Your task to perform on an android device: turn off location Image 0: 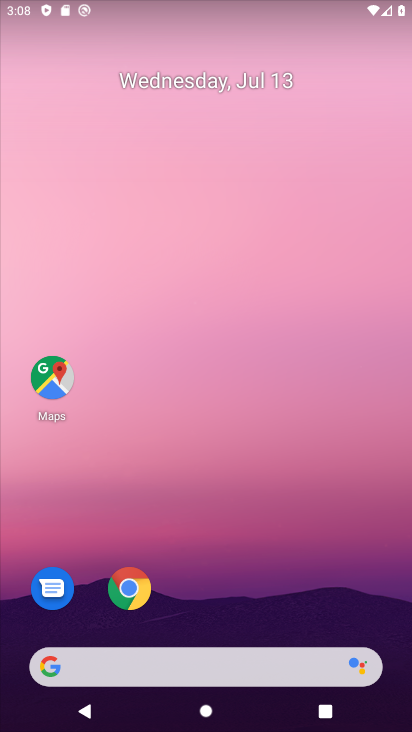
Step 0: drag from (285, 680) to (309, 96)
Your task to perform on an android device: turn off location Image 1: 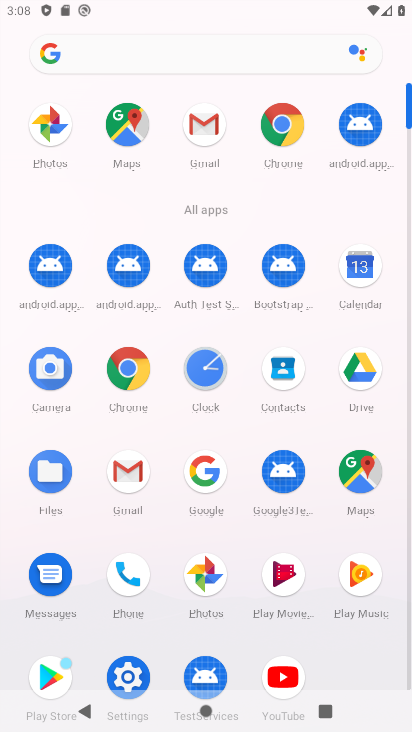
Step 1: click (128, 667)
Your task to perform on an android device: turn off location Image 2: 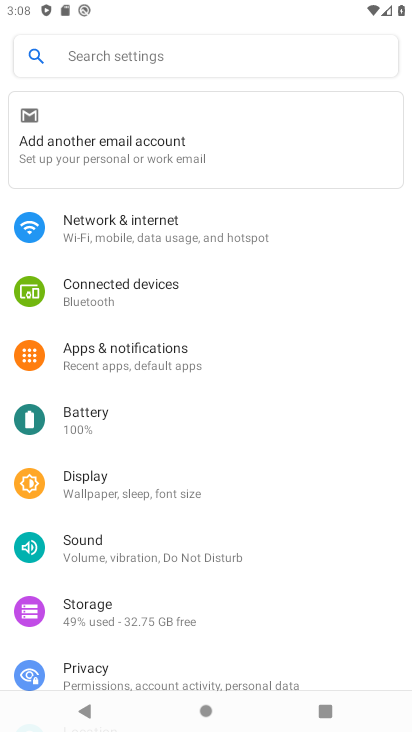
Step 2: drag from (85, 511) to (52, 114)
Your task to perform on an android device: turn off location Image 3: 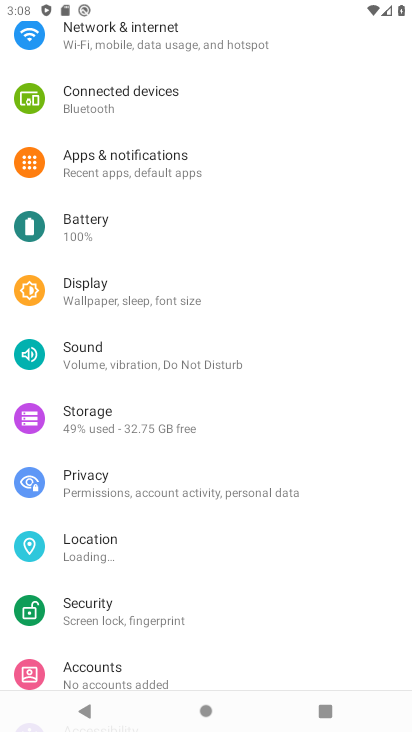
Step 3: drag from (148, 530) to (181, 233)
Your task to perform on an android device: turn off location Image 4: 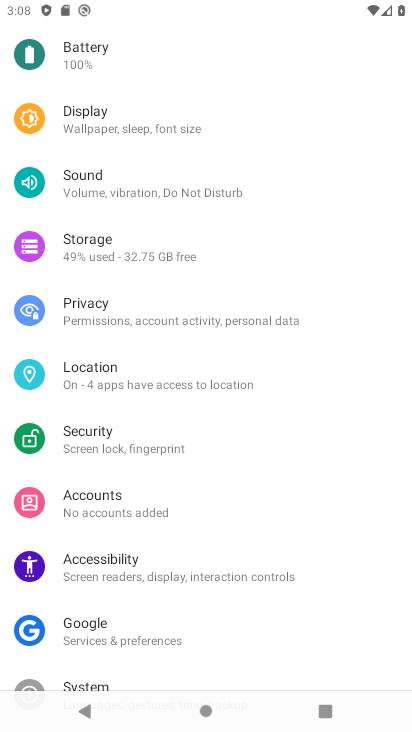
Step 4: click (80, 366)
Your task to perform on an android device: turn off location Image 5: 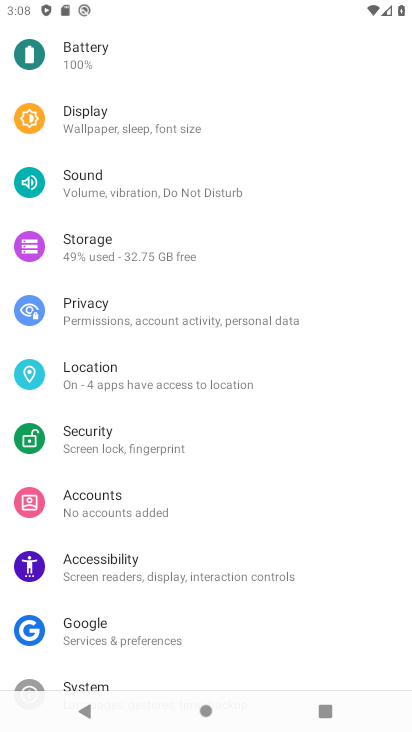
Step 5: click (80, 366)
Your task to perform on an android device: turn off location Image 6: 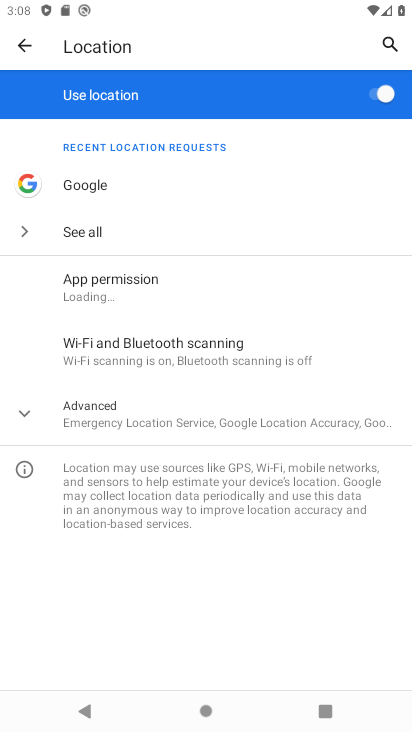
Step 6: click (383, 98)
Your task to perform on an android device: turn off location Image 7: 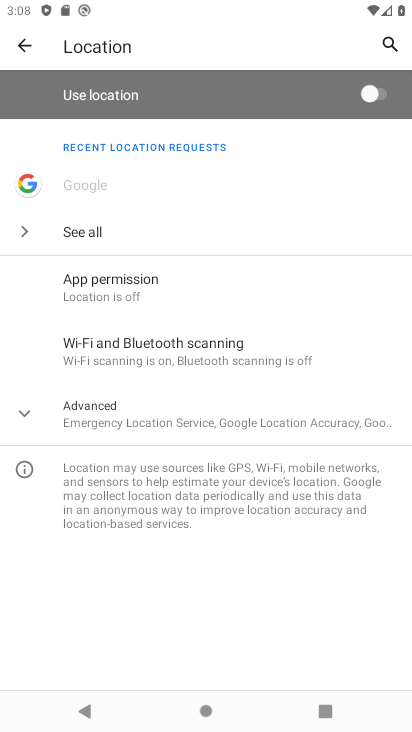
Step 7: task complete